Your task to perform on an android device: open chrome privacy settings Image 0: 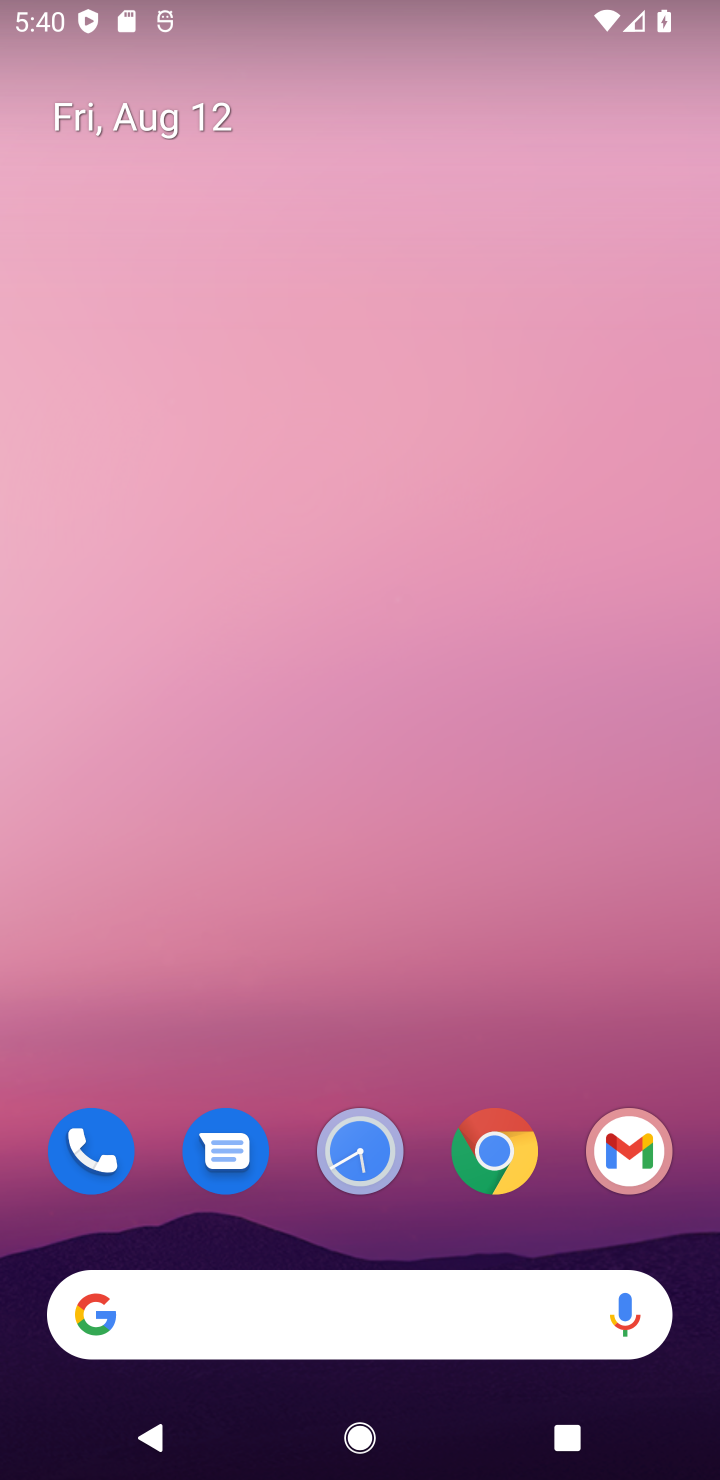
Step 0: drag from (538, 1038) to (334, 159)
Your task to perform on an android device: open chrome privacy settings Image 1: 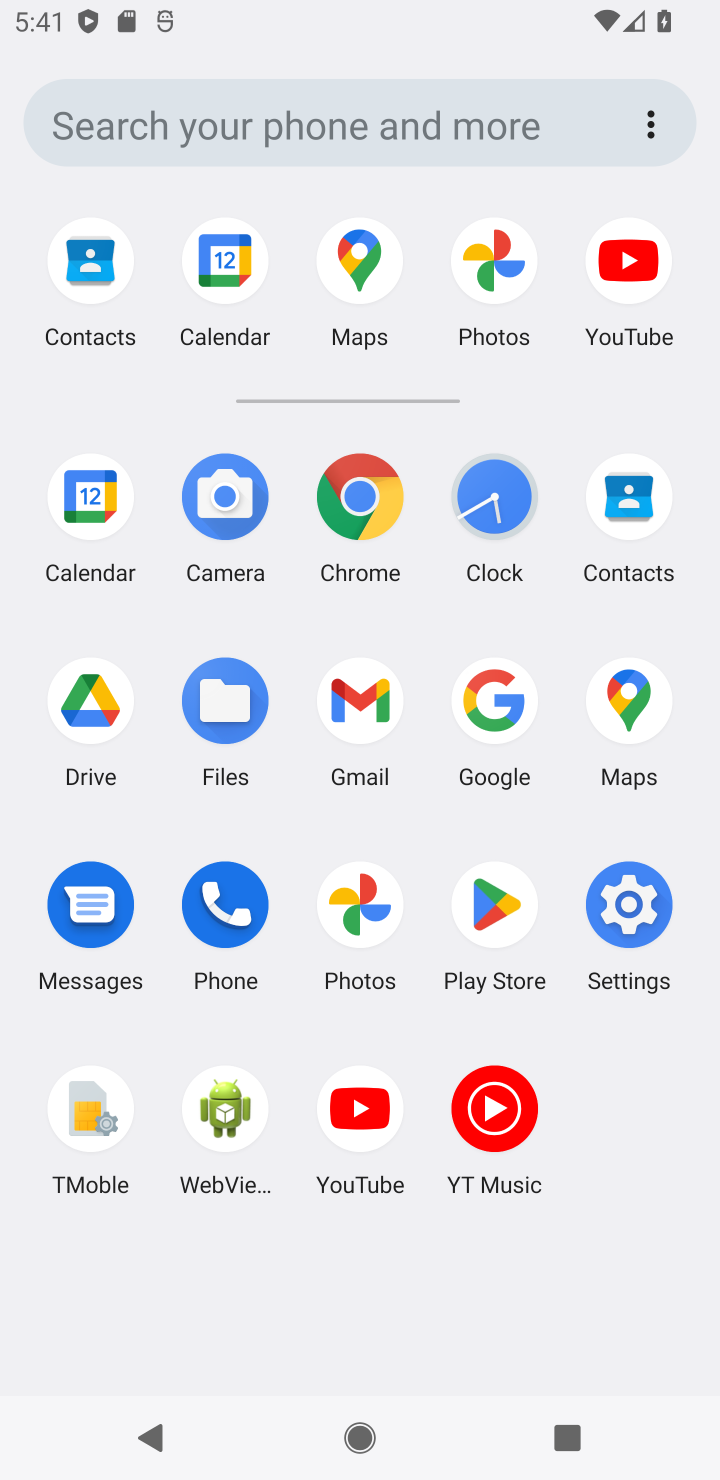
Step 1: click (364, 489)
Your task to perform on an android device: open chrome privacy settings Image 2: 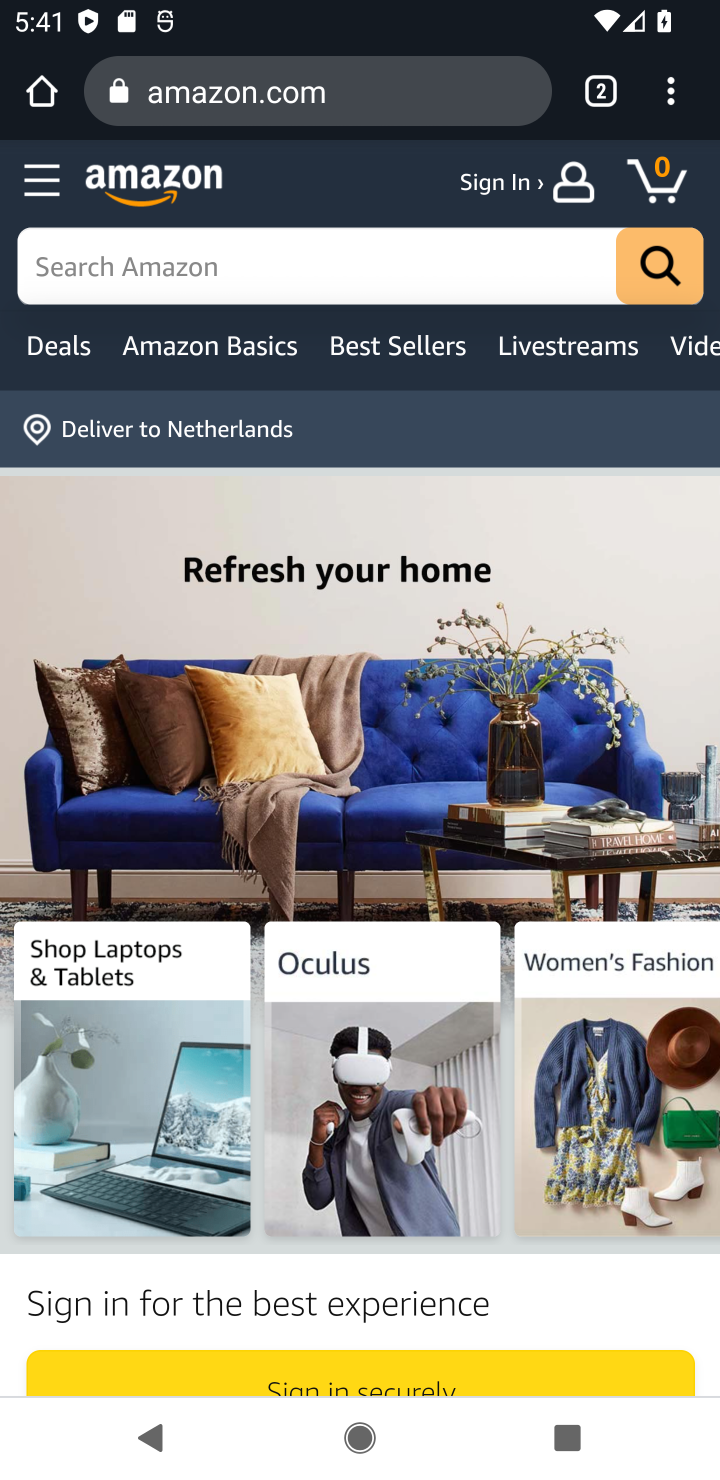
Step 2: drag from (682, 82) to (404, 1269)
Your task to perform on an android device: open chrome privacy settings Image 3: 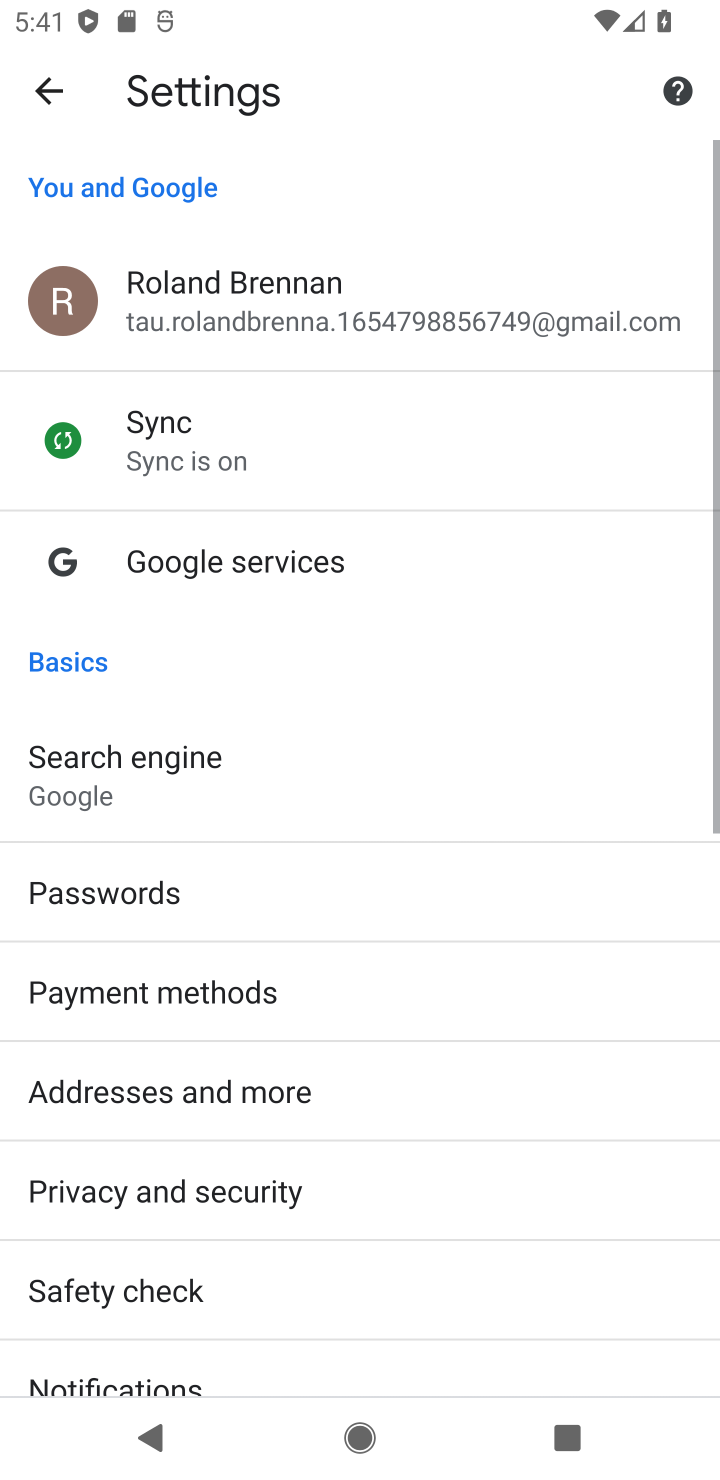
Step 3: drag from (363, 1137) to (390, 239)
Your task to perform on an android device: open chrome privacy settings Image 4: 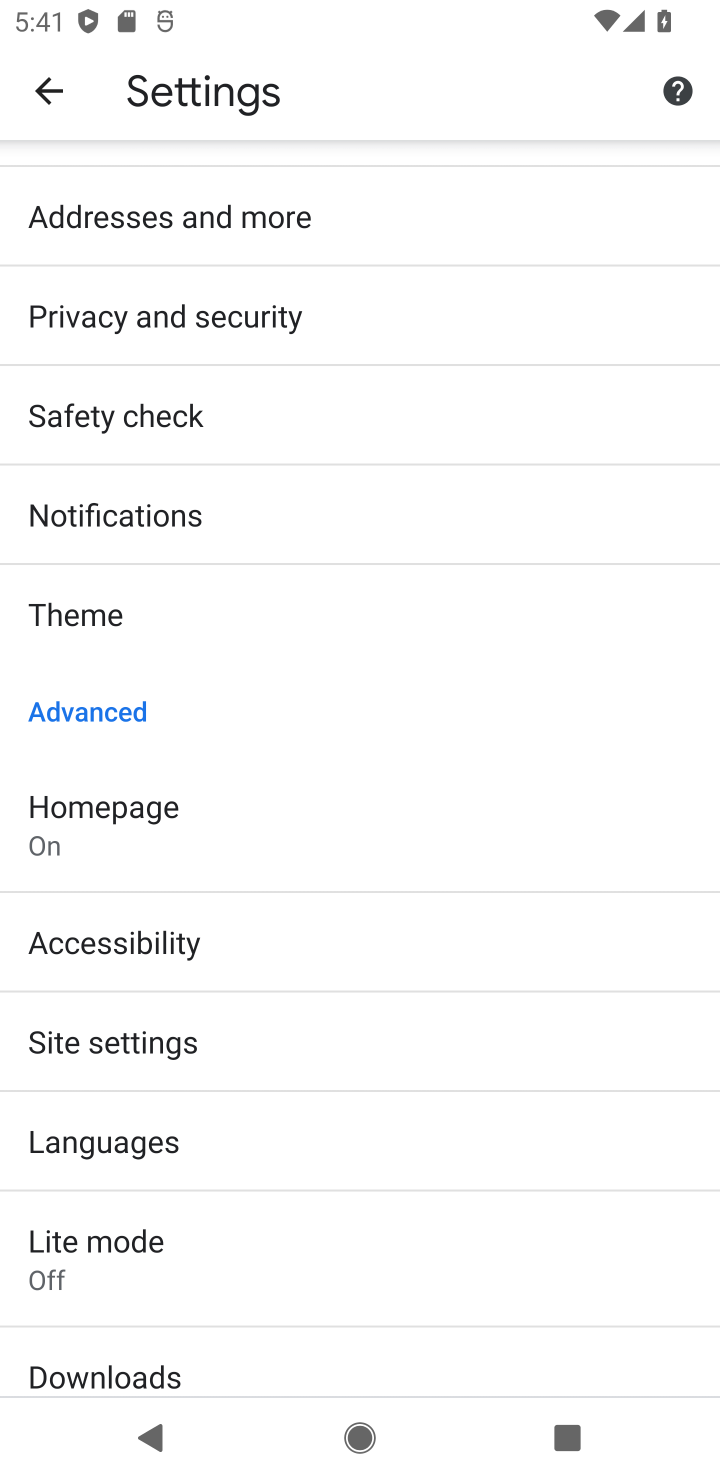
Step 4: click (249, 325)
Your task to perform on an android device: open chrome privacy settings Image 5: 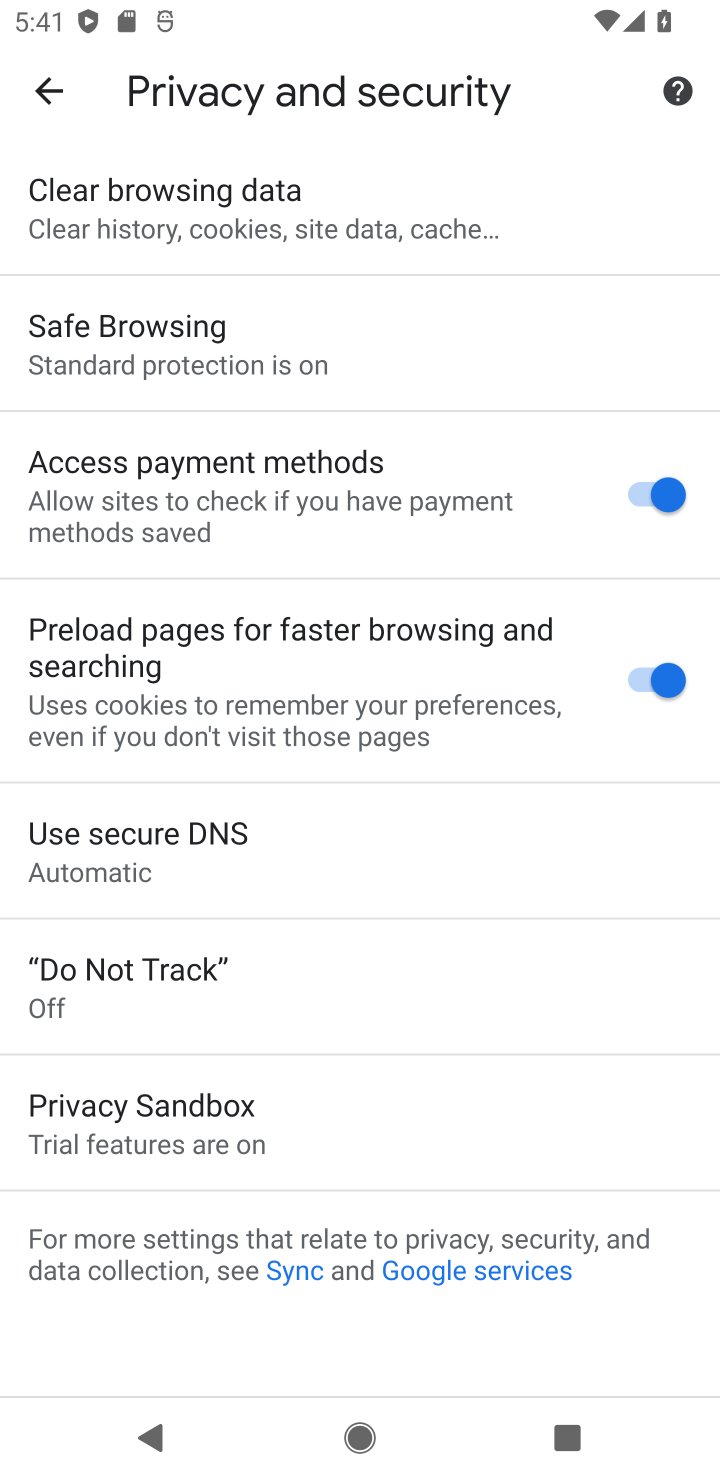
Step 5: task complete